Your task to perform on an android device: show emergency info Image 0: 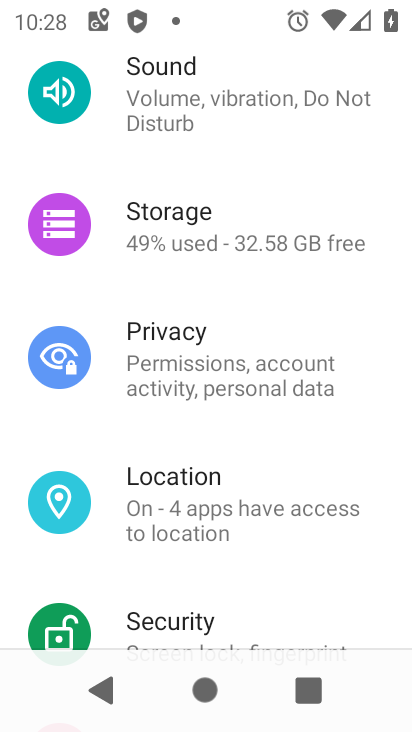
Step 0: drag from (332, 562) to (338, 87)
Your task to perform on an android device: show emergency info Image 1: 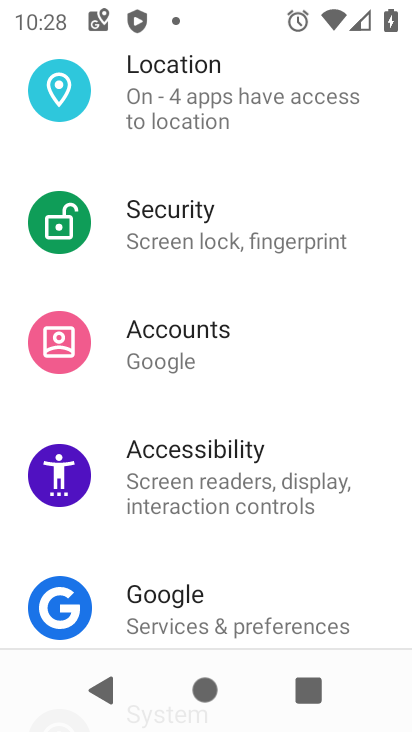
Step 1: drag from (296, 558) to (288, 62)
Your task to perform on an android device: show emergency info Image 2: 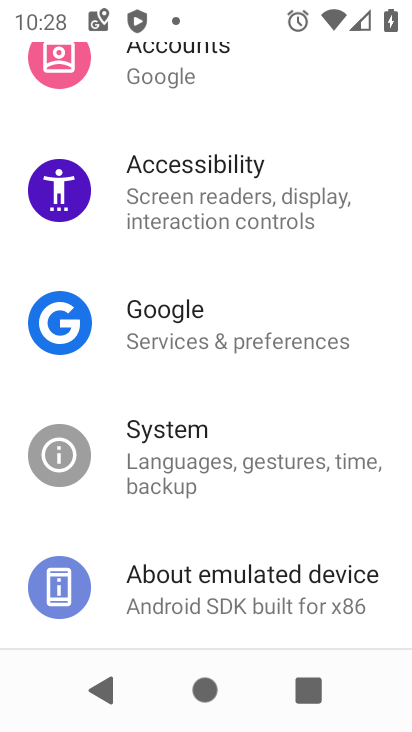
Step 2: click (222, 583)
Your task to perform on an android device: show emergency info Image 3: 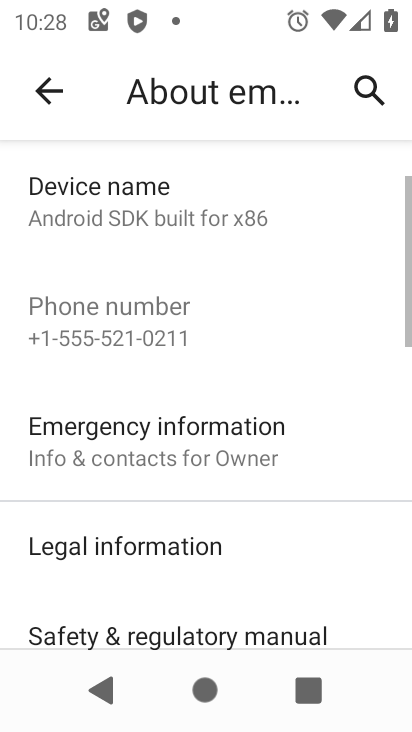
Step 3: click (135, 437)
Your task to perform on an android device: show emergency info Image 4: 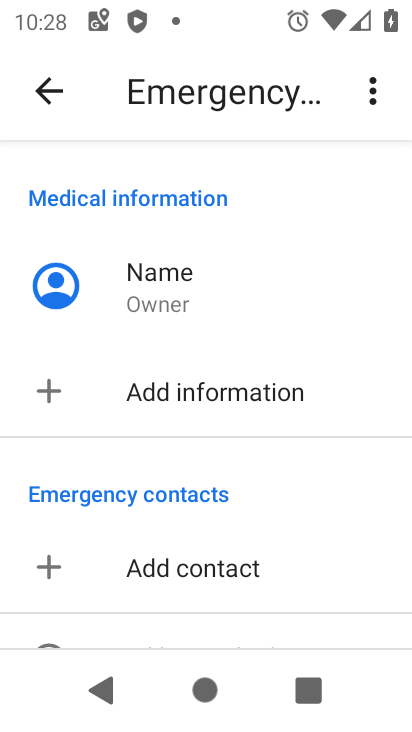
Step 4: task complete